Your task to perform on an android device: delete a single message in the gmail app Image 0: 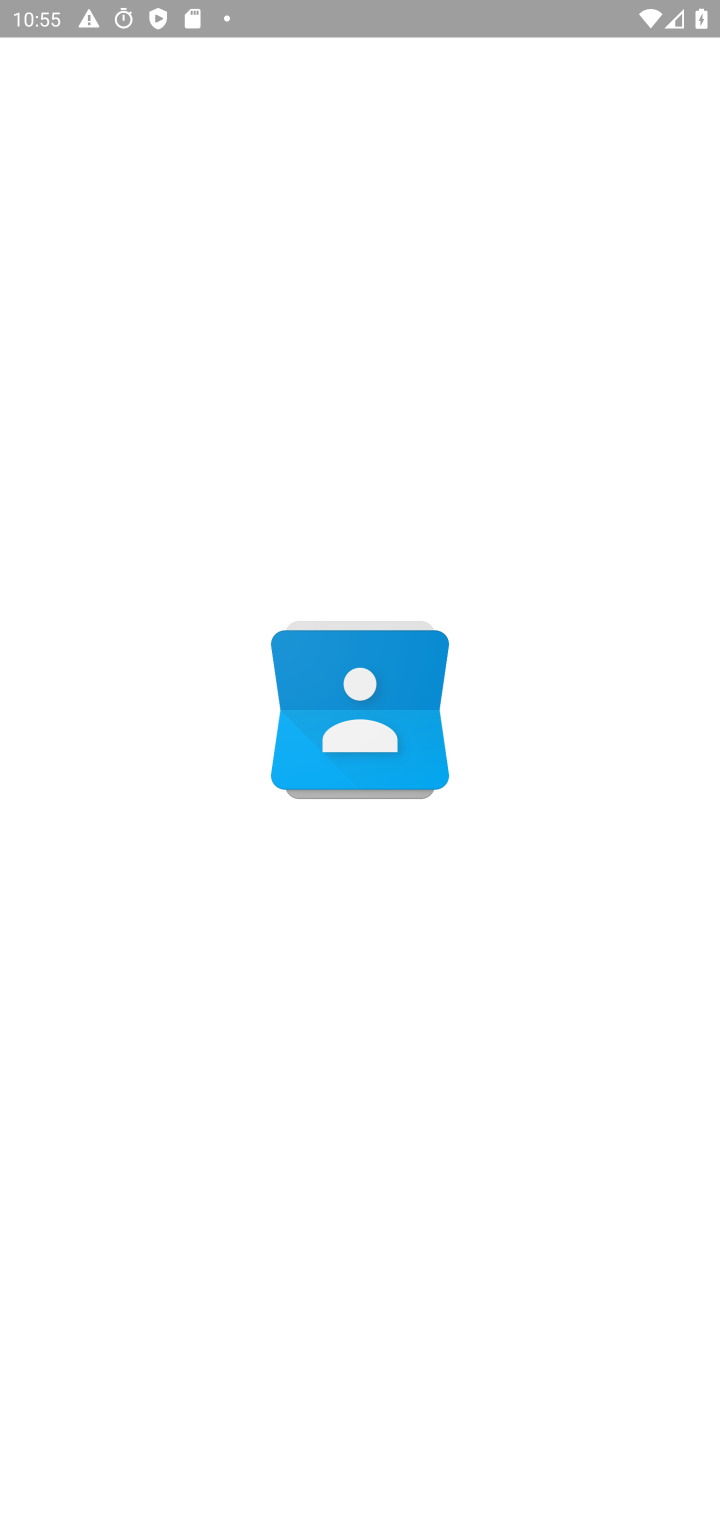
Step 0: press home button
Your task to perform on an android device: delete a single message in the gmail app Image 1: 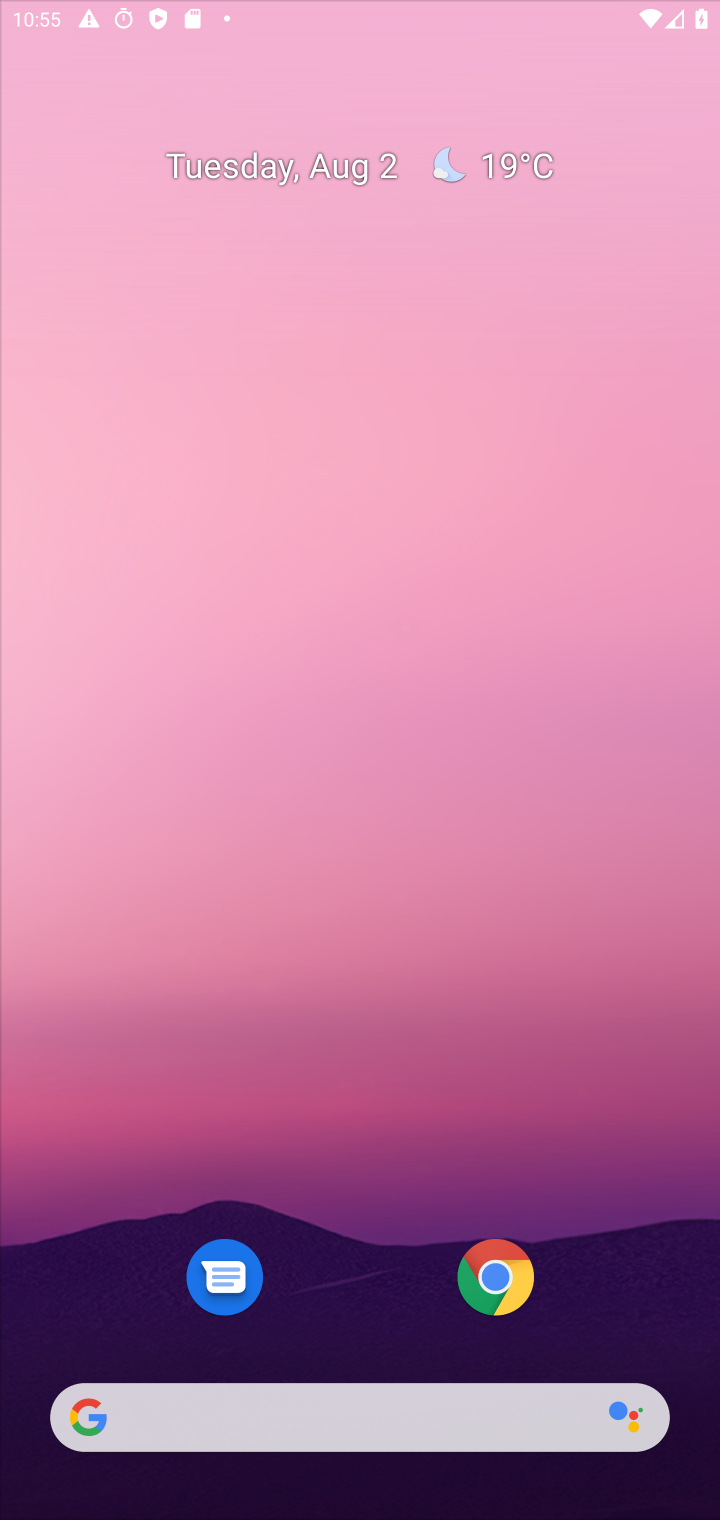
Step 1: press home button
Your task to perform on an android device: delete a single message in the gmail app Image 2: 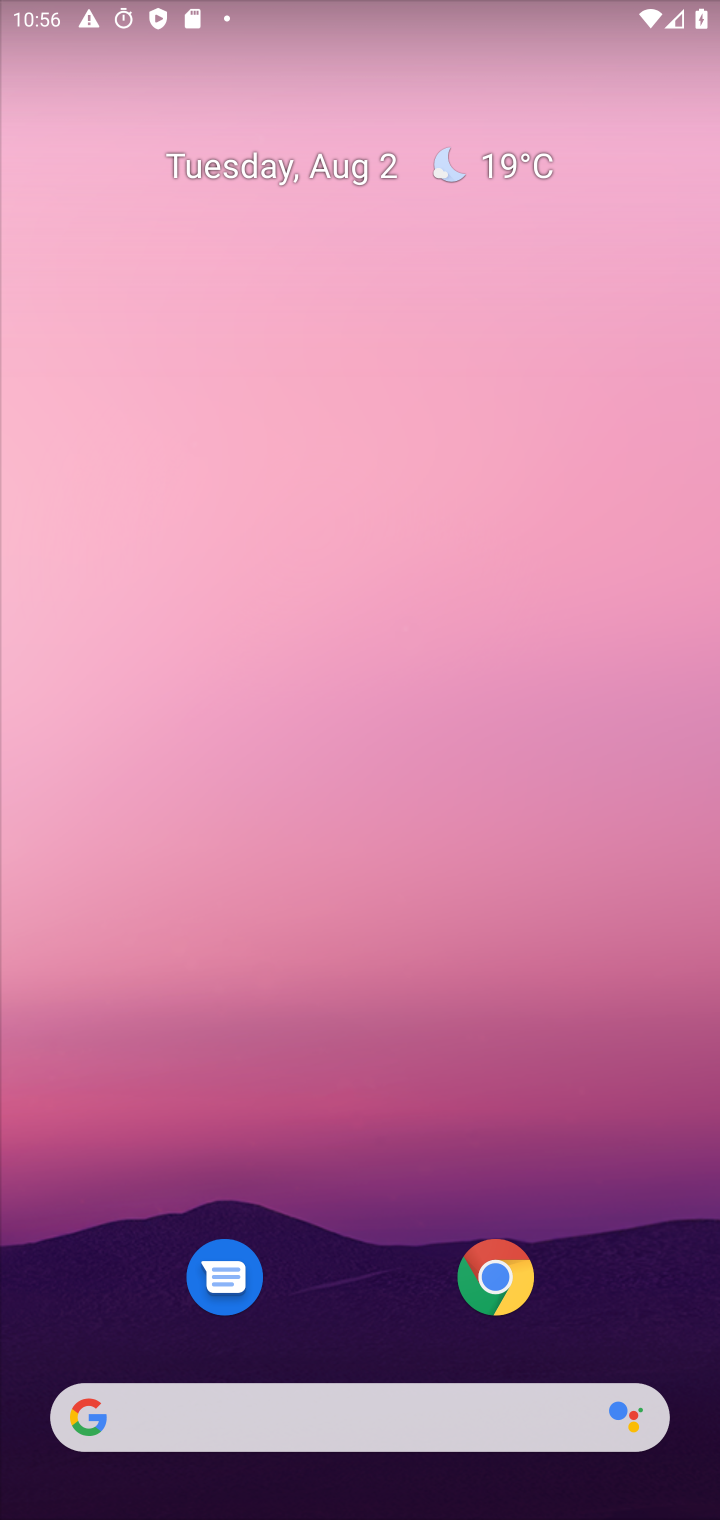
Step 2: drag from (369, 1303) to (509, 182)
Your task to perform on an android device: delete a single message in the gmail app Image 3: 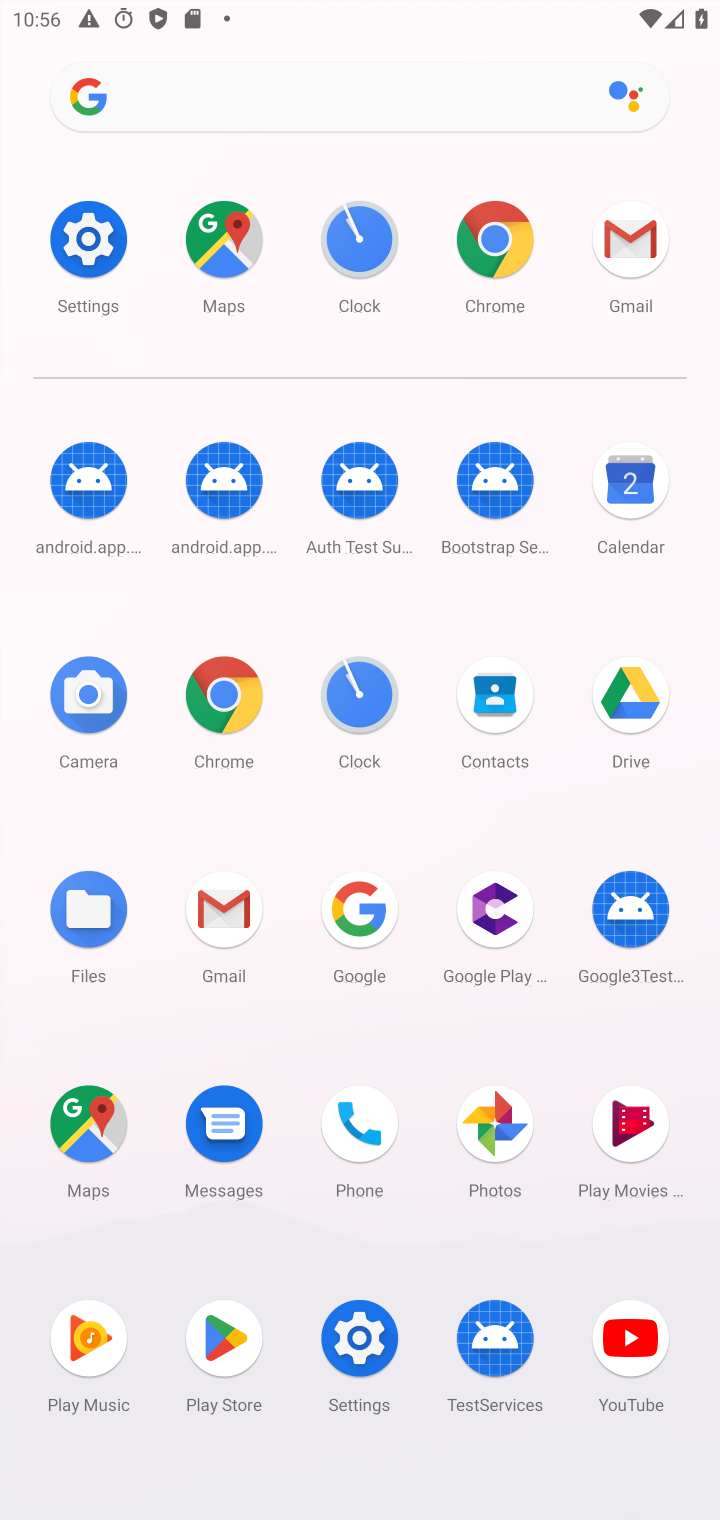
Step 3: click (647, 233)
Your task to perform on an android device: delete a single message in the gmail app Image 4: 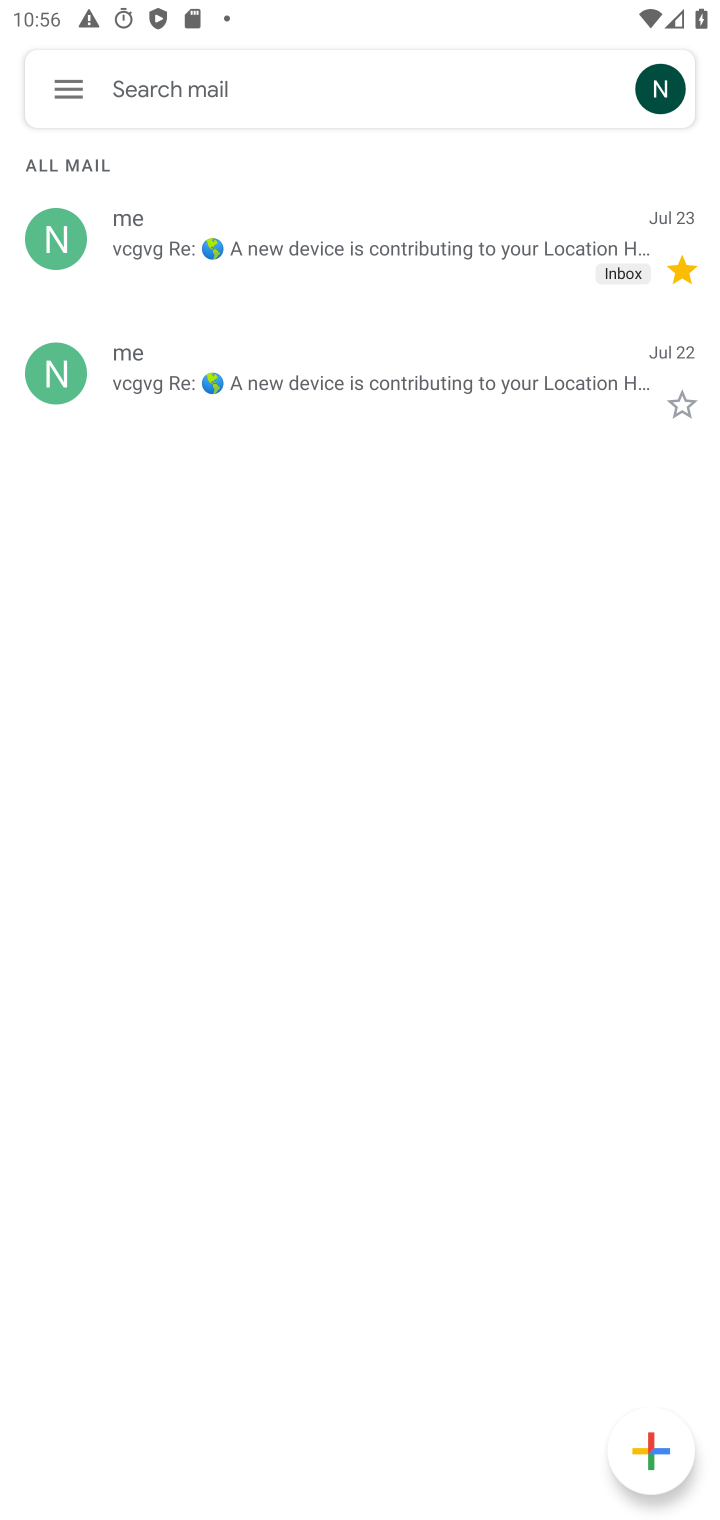
Step 4: click (477, 236)
Your task to perform on an android device: delete a single message in the gmail app Image 5: 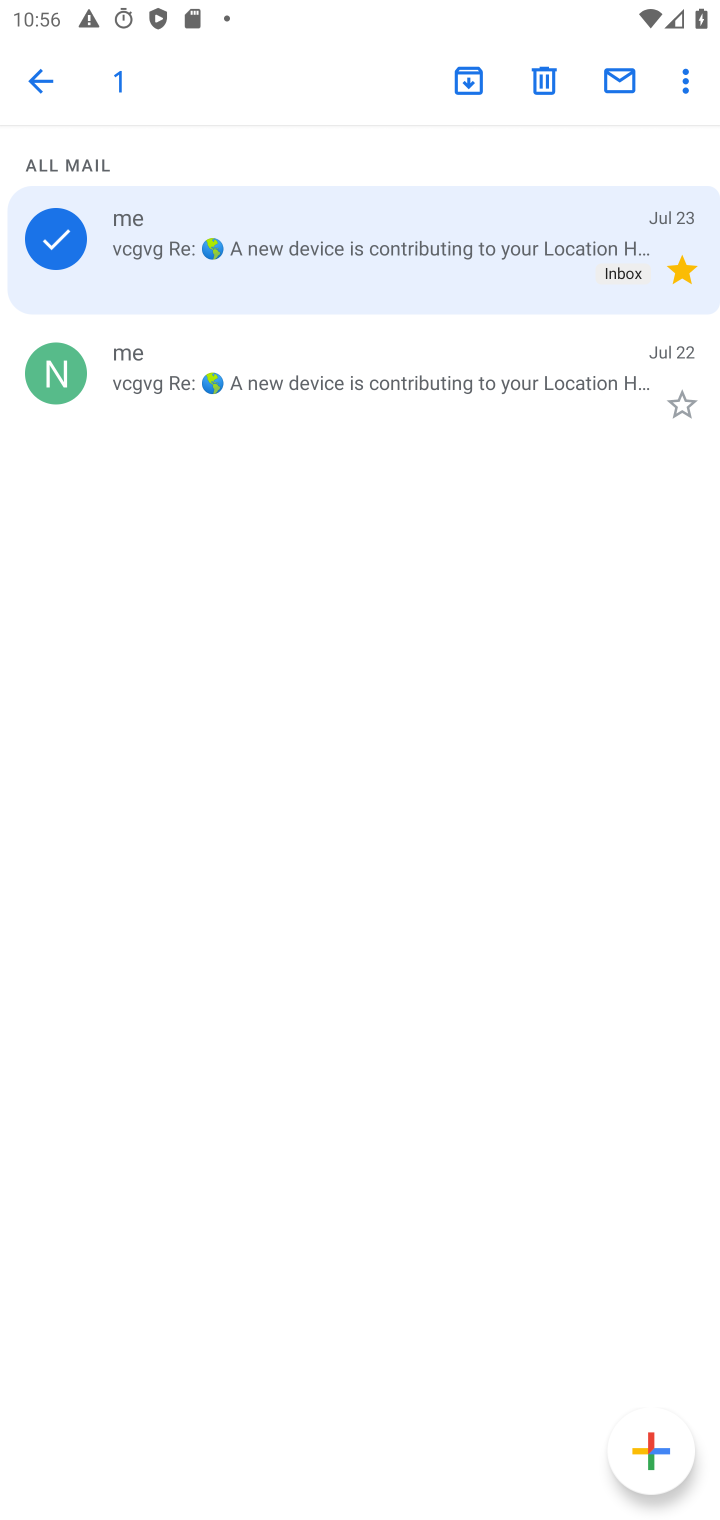
Step 5: click (535, 72)
Your task to perform on an android device: delete a single message in the gmail app Image 6: 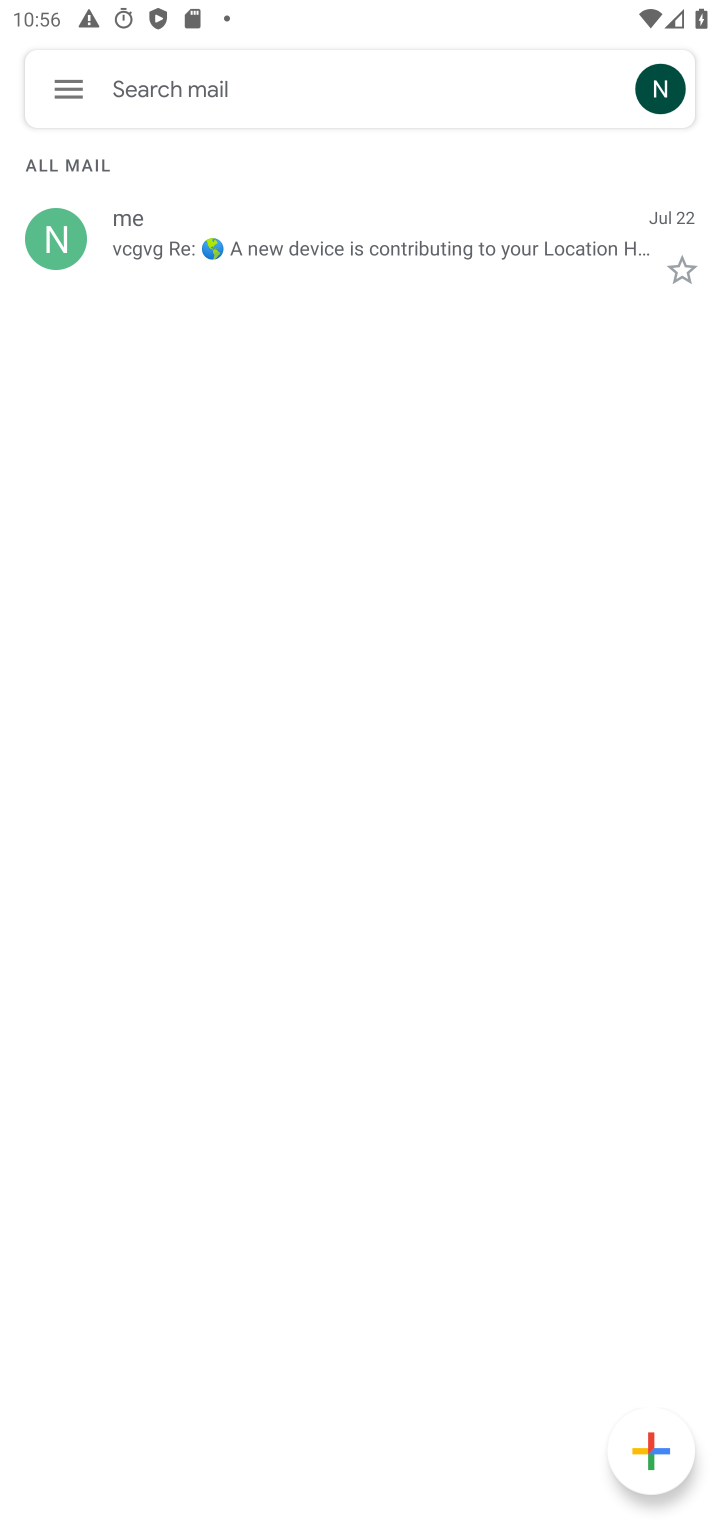
Step 6: press home button
Your task to perform on an android device: delete a single message in the gmail app Image 7: 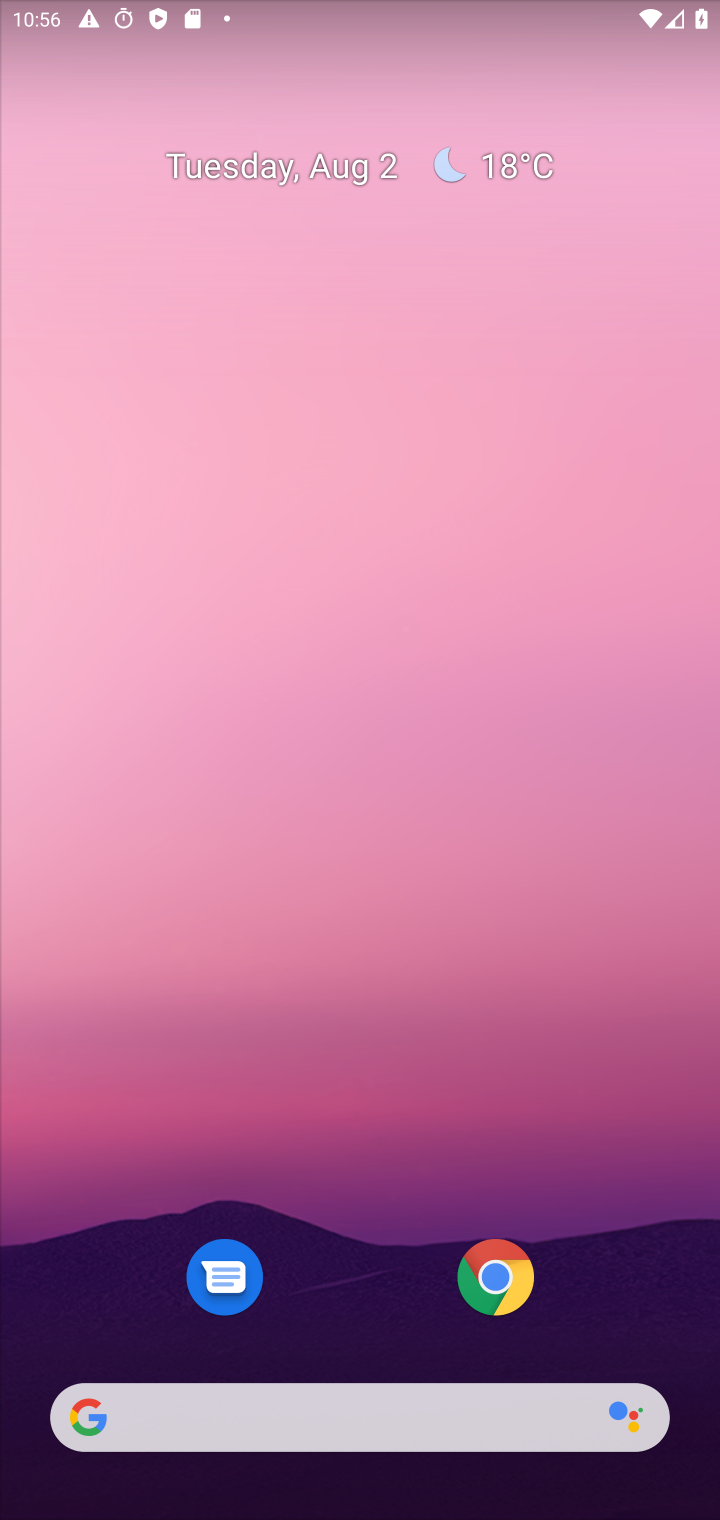
Step 7: drag from (340, 111) to (338, 28)
Your task to perform on an android device: delete a single message in the gmail app Image 8: 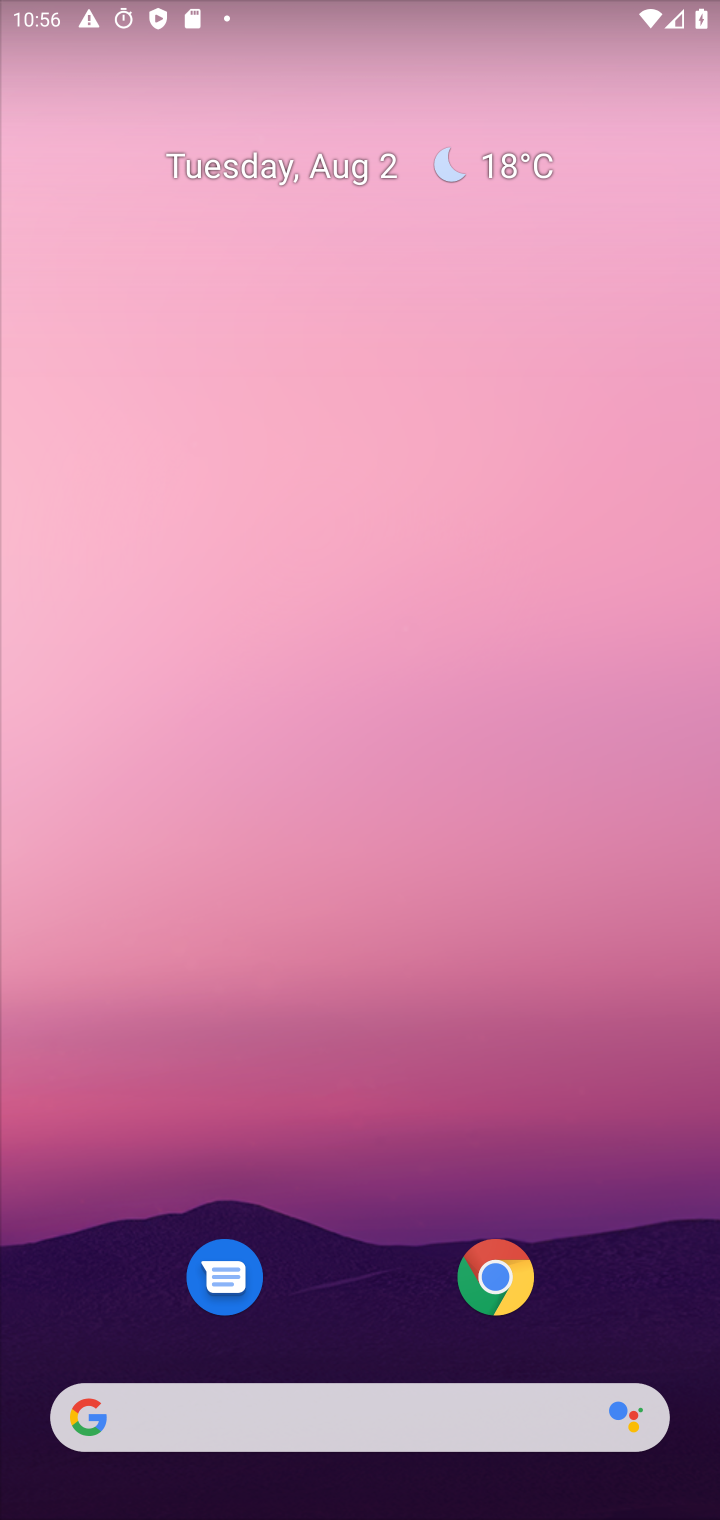
Step 8: drag from (313, 789) to (355, 0)
Your task to perform on an android device: delete a single message in the gmail app Image 9: 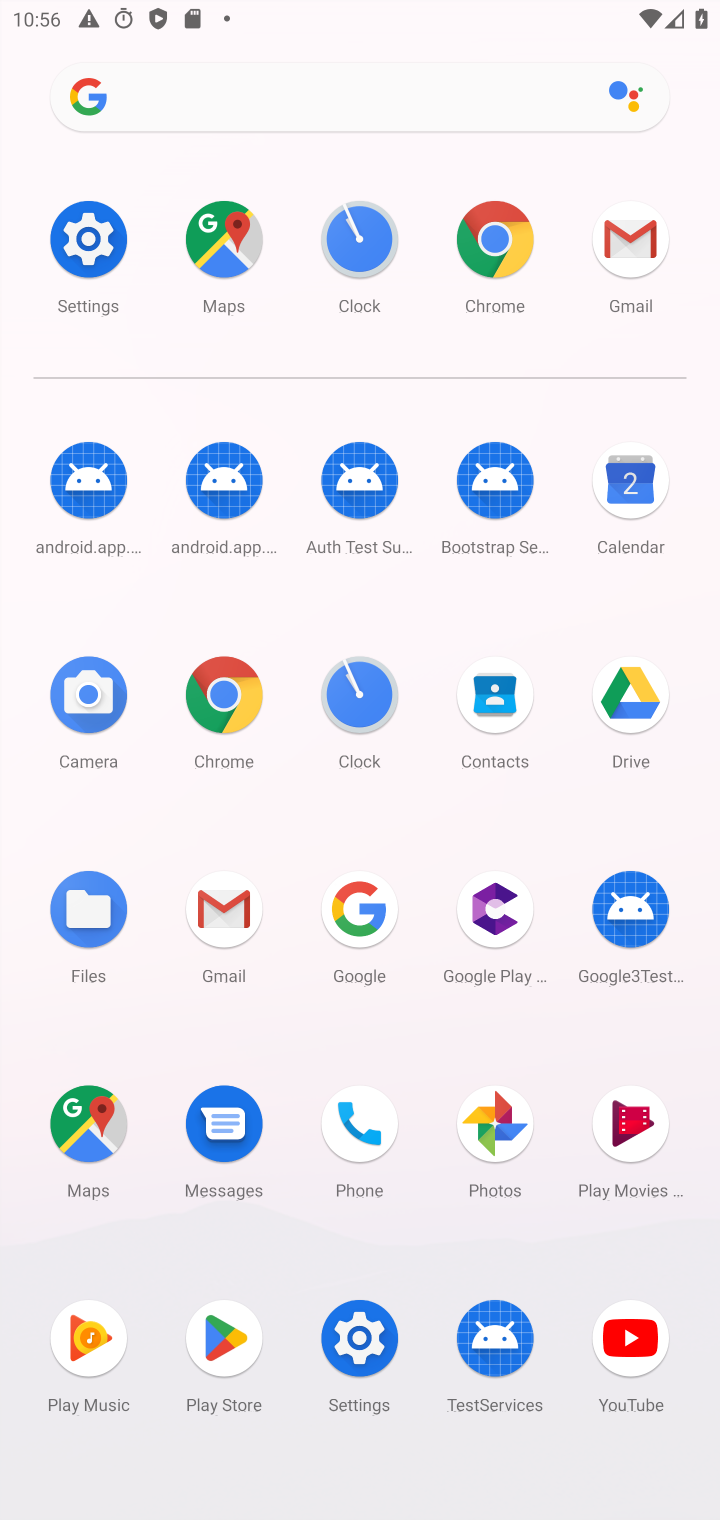
Step 9: click (631, 253)
Your task to perform on an android device: delete a single message in the gmail app Image 10: 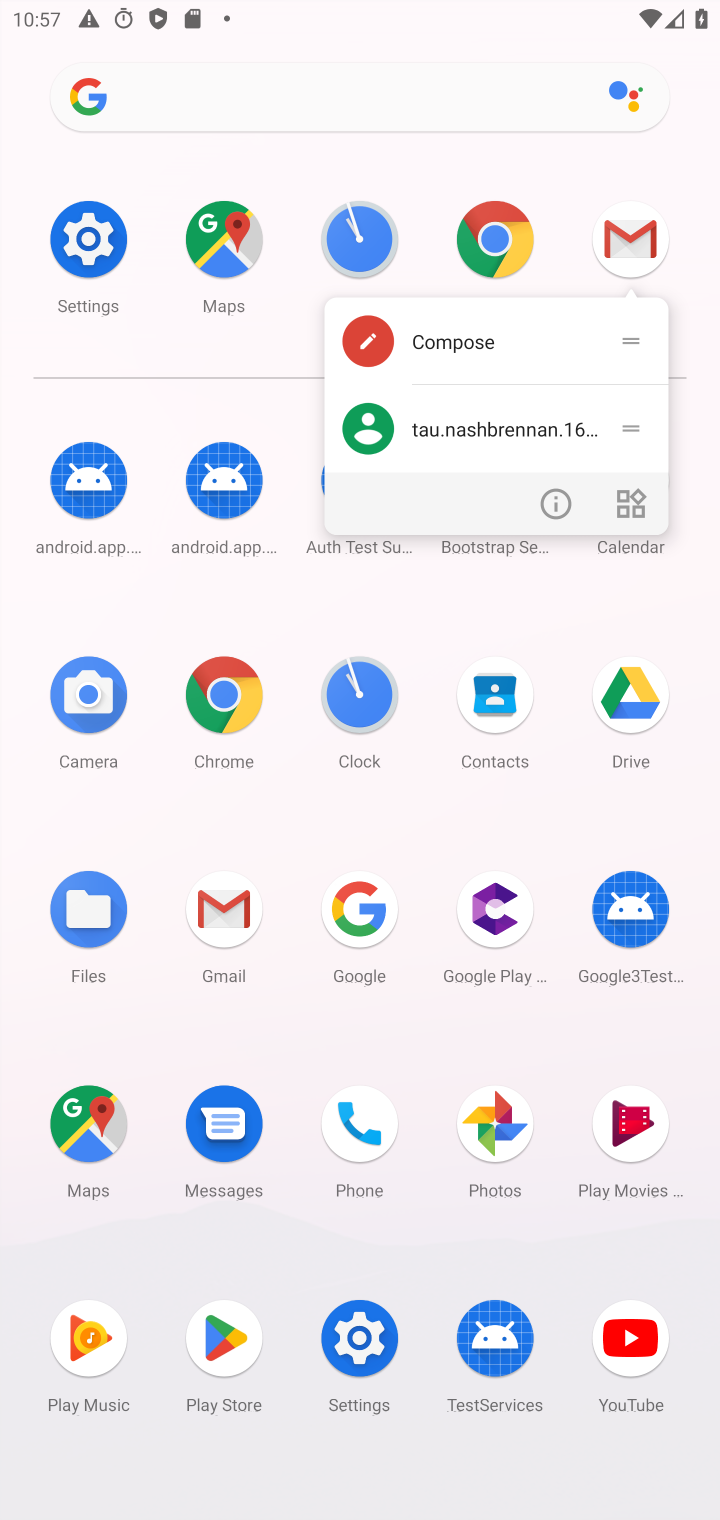
Step 10: click (630, 227)
Your task to perform on an android device: delete a single message in the gmail app Image 11: 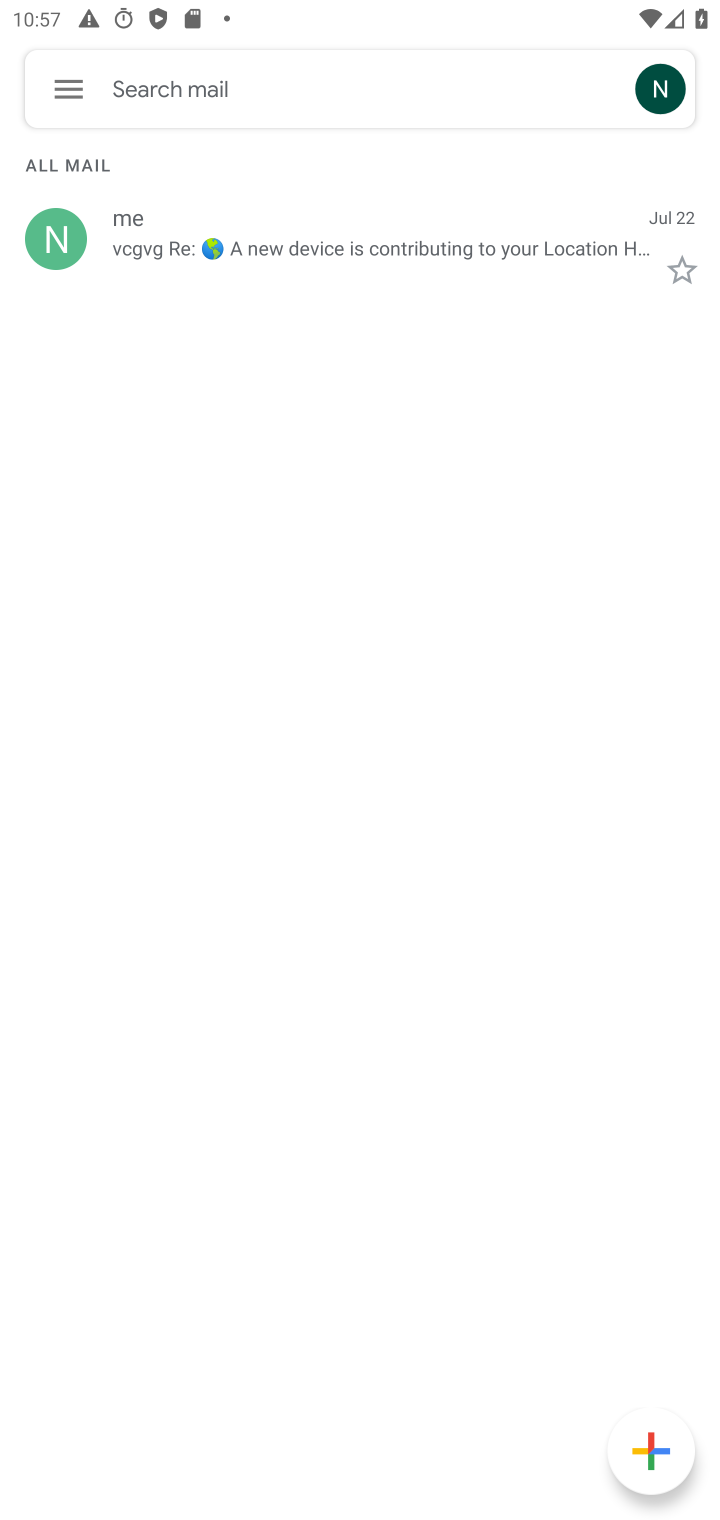
Step 11: click (202, 246)
Your task to perform on an android device: delete a single message in the gmail app Image 12: 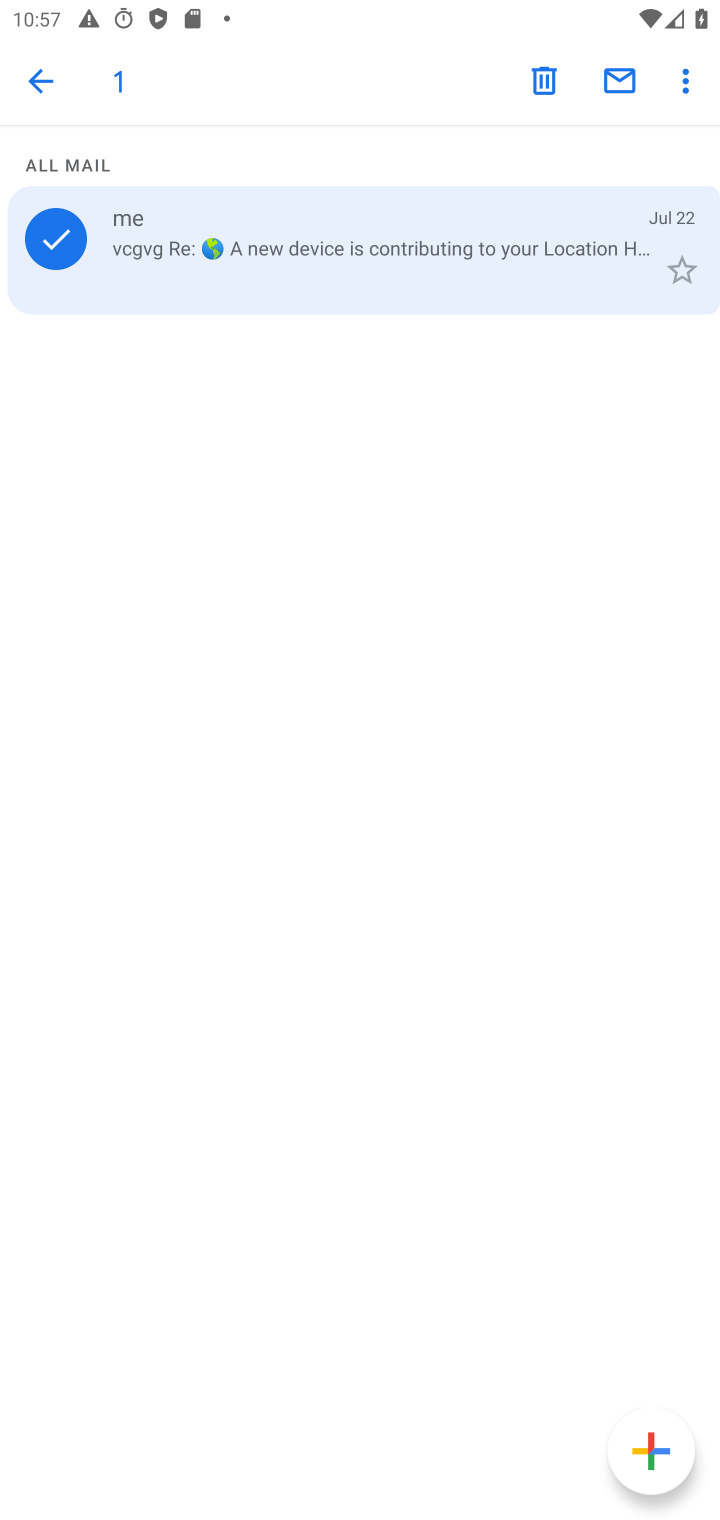
Step 12: click (538, 64)
Your task to perform on an android device: delete a single message in the gmail app Image 13: 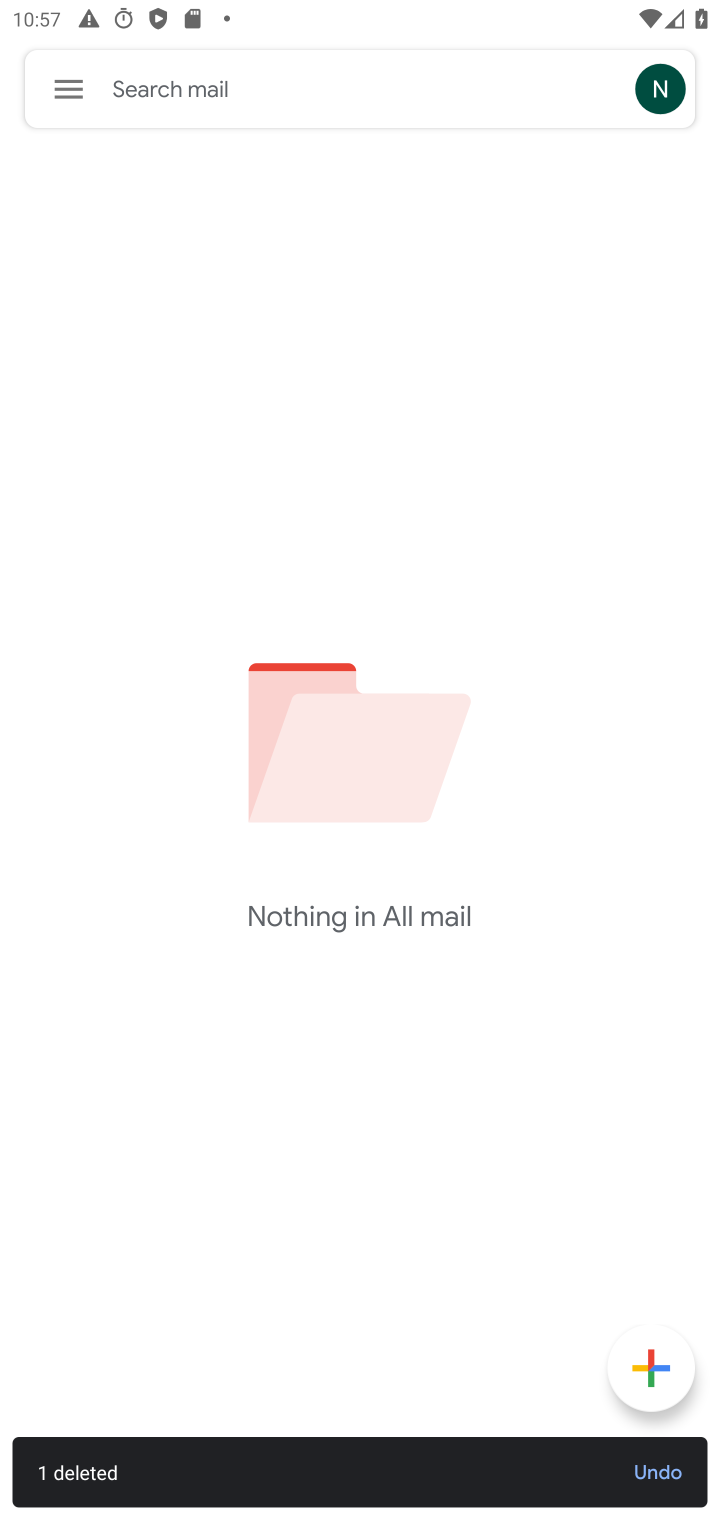
Step 13: task complete